Your task to perform on an android device: Open the Play Movies app and select the watchlist tab. Image 0: 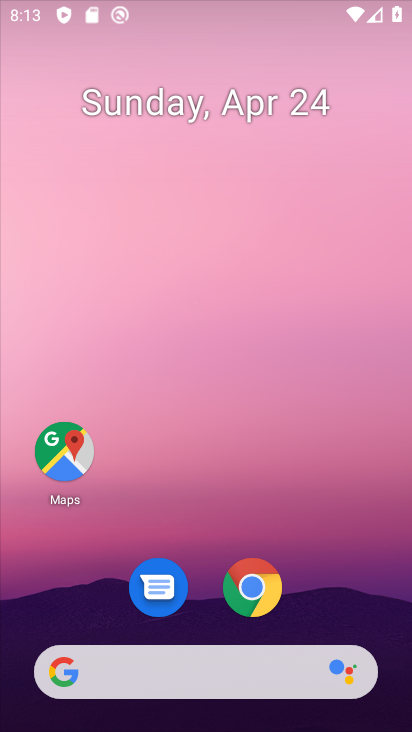
Step 0: drag from (233, 478) to (234, 61)
Your task to perform on an android device: Open the Play Movies app and select the watchlist tab. Image 1: 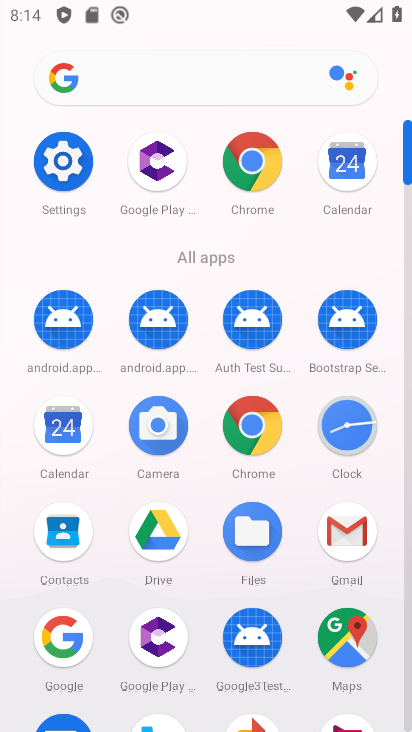
Step 1: drag from (171, 651) to (204, 73)
Your task to perform on an android device: Open the Play Movies app and select the watchlist tab. Image 2: 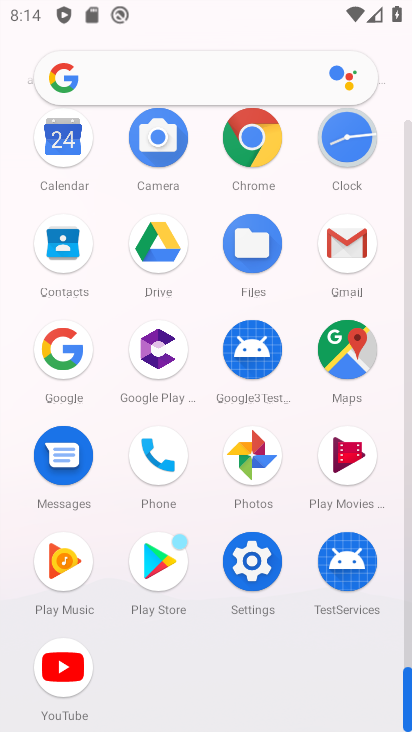
Step 2: click (350, 457)
Your task to perform on an android device: Open the Play Movies app and select the watchlist tab. Image 3: 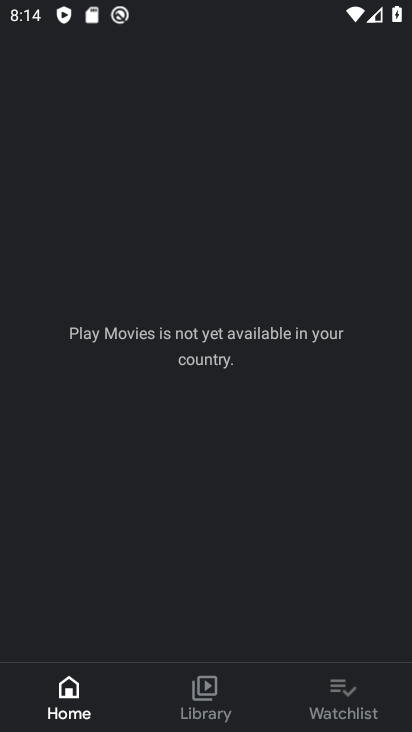
Step 3: click (359, 708)
Your task to perform on an android device: Open the Play Movies app and select the watchlist tab. Image 4: 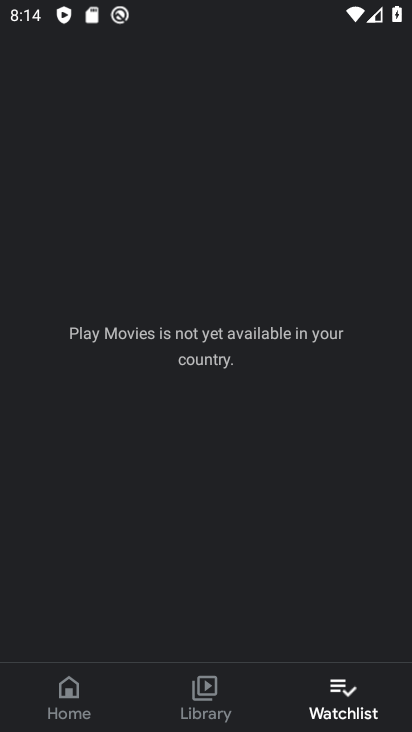
Step 4: task complete